Your task to perform on an android device: refresh tabs in the chrome app Image 0: 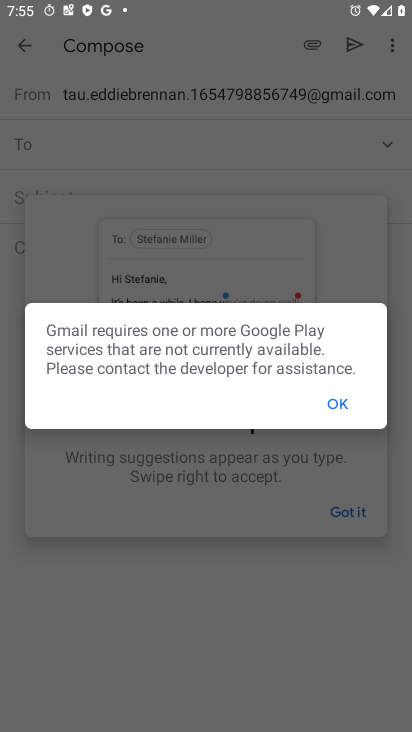
Step 0: press home button
Your task to perform on an android device: refresh tabs in the chrome app Image 1: 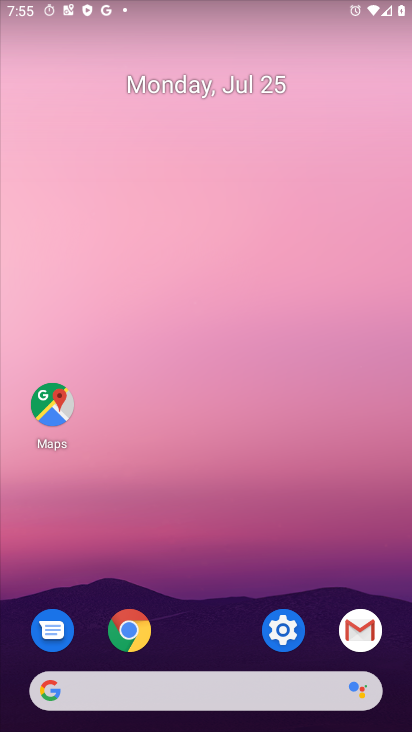
Step 1: click (139, 632)
Your task to perform on an android device: refresh tabs in the chrome app Image 2: 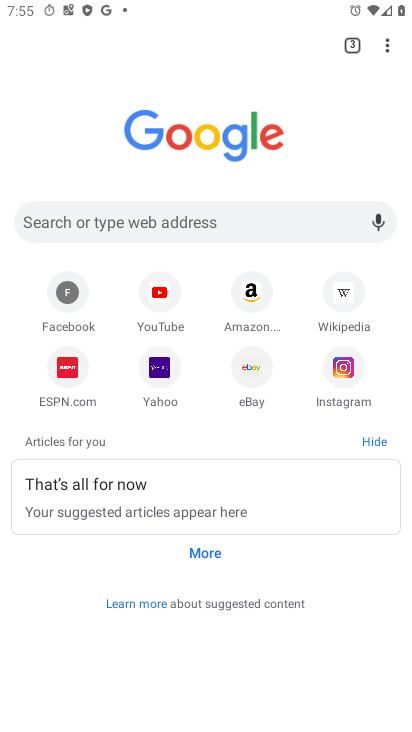
Step 2: click (391, 49)
Your task to perform on an android device: refresh tabs in the chrome app Image 3: 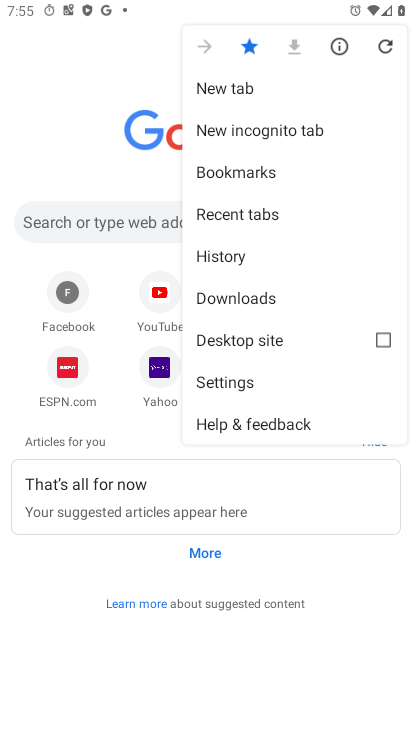
Step 3: click (377, 58)
Your task to perform on an android device: refresh tabs in the chrome app Image 4: 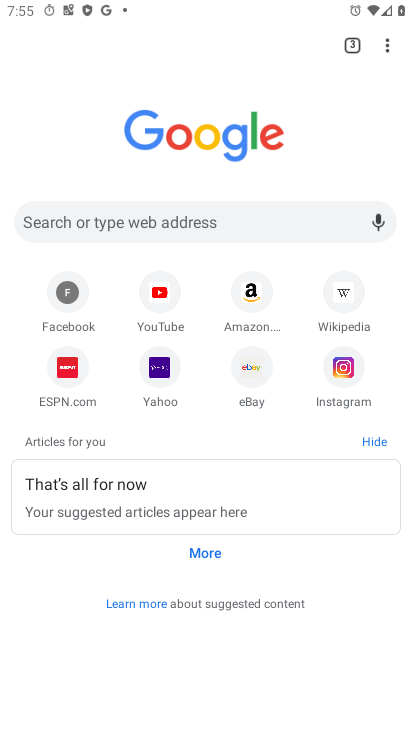
Step 4: task complete